Your task to perform on an android device: Open CNN.com Image 0: 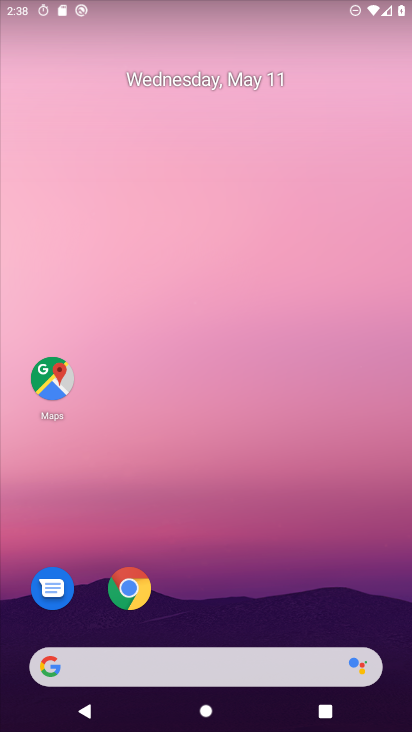
Step 0: click (117, 588)
Your task to perform on an android device: Open CNN.com Image 1: 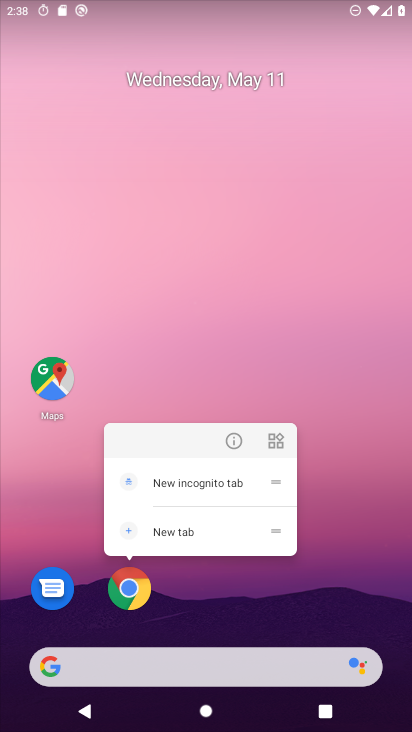
Step 1: click (123, 585)
Your task to perform on an android device: Open CNN.com Image 2: 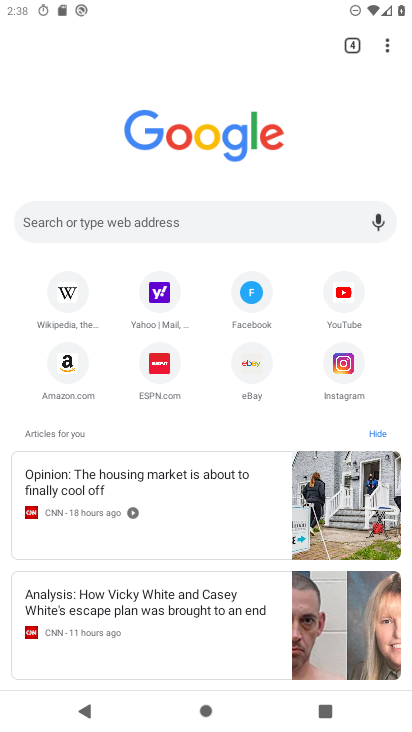
Step 2: click (132, 218)
Your task to perform on an android device: Open CNN.com Image 3: 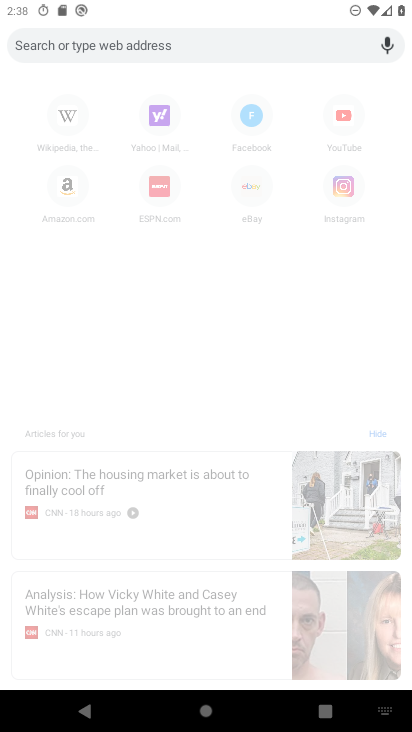
Step 3: type "CNN.com"
Your task to perform on an android device: Open CNN.com Image 4: 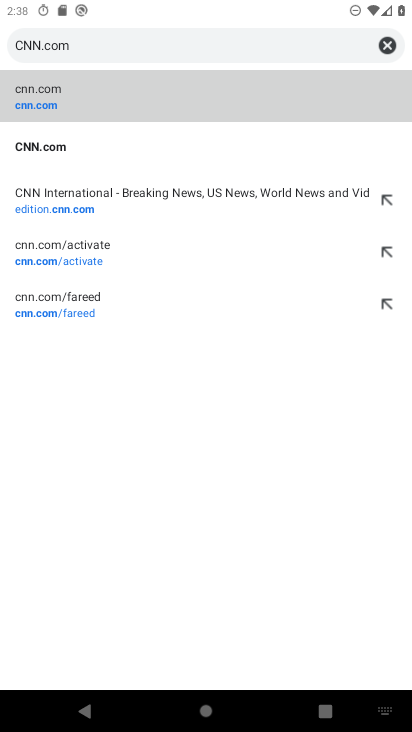
Step 4: click (32, 99)
Your task to perform on an android device: Open CNN.com Image 5: 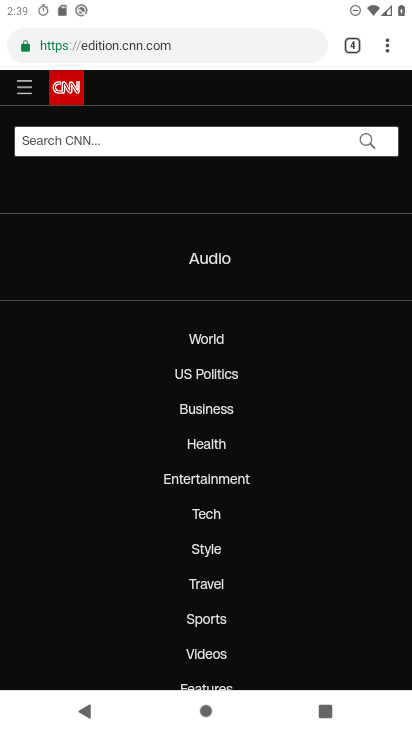
Step 5: task complete